Your task to perform on an android device: open sync settings in chrome Image 0: 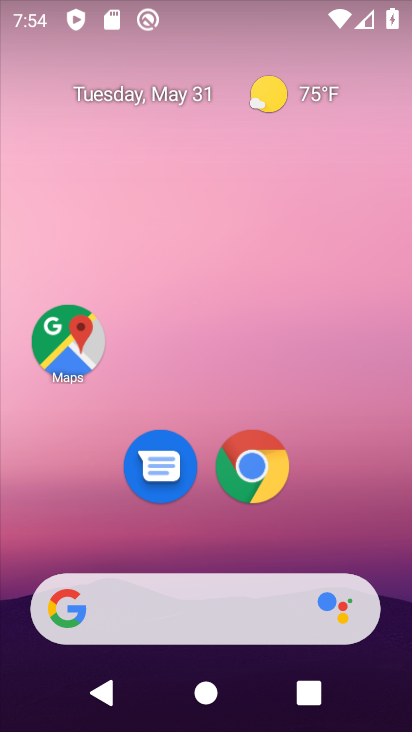
Step 0: drag from (193, 538) to (255, 173)
Your task to perform on an android device: open sync settings in chrome Image 1: 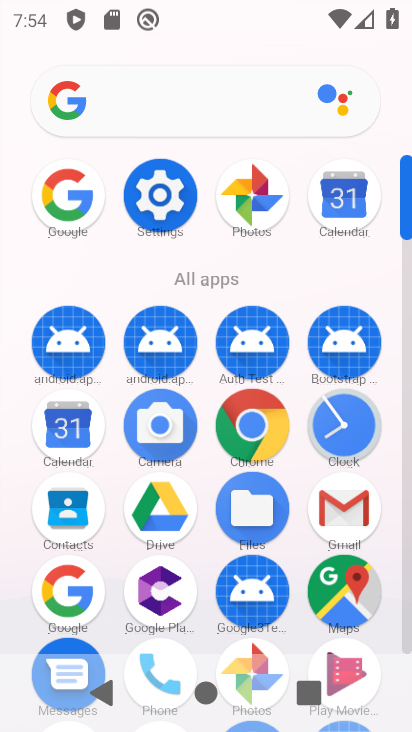
Step 1: click (252, 416)
Your task to perform on an android device: open sync settings in chrome Image 2: 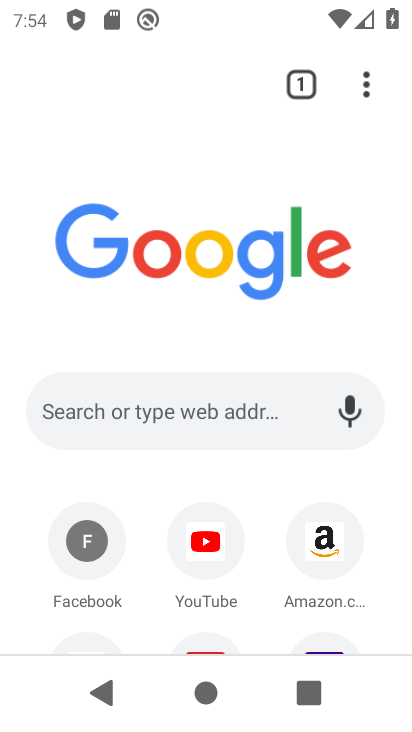
Step 2: drag from (366, 85) to (124, 526)
Your task to perform on an android device: open sync settings in chrome Image 3: 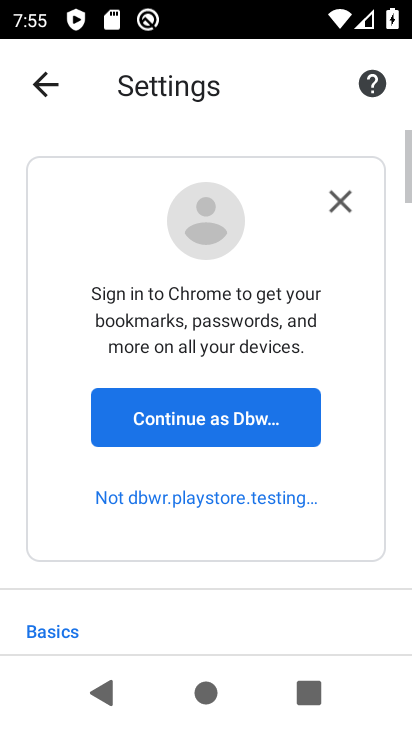
Step 3: drag from (230, 612) to (317, 137)
Your task to perform on an android device: open sync settings in chrome Image 4: 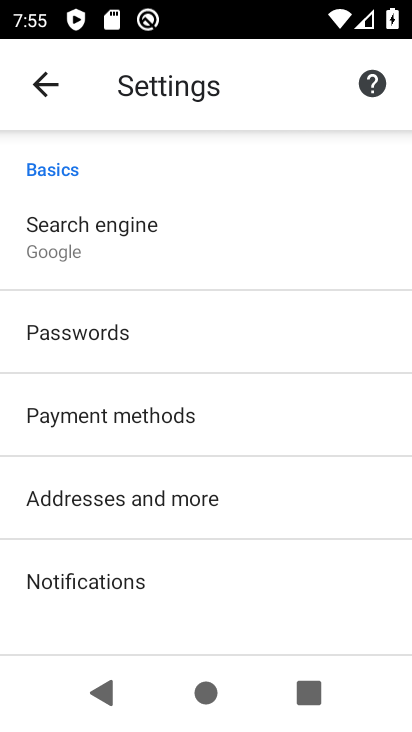
Step 4: drag from (188, 480) to (299, 111)
Your task to perform on an android device: open sync settings in chrome Image 5: 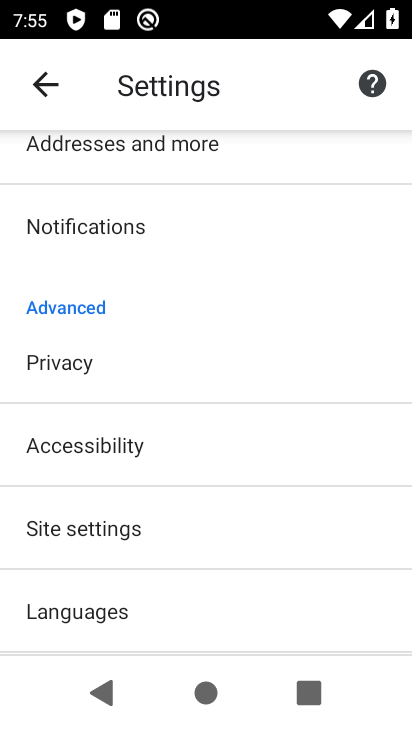
Step 5: click (188, 531)
Your task to perform on an android device: open sync settings in chrome Image 6: 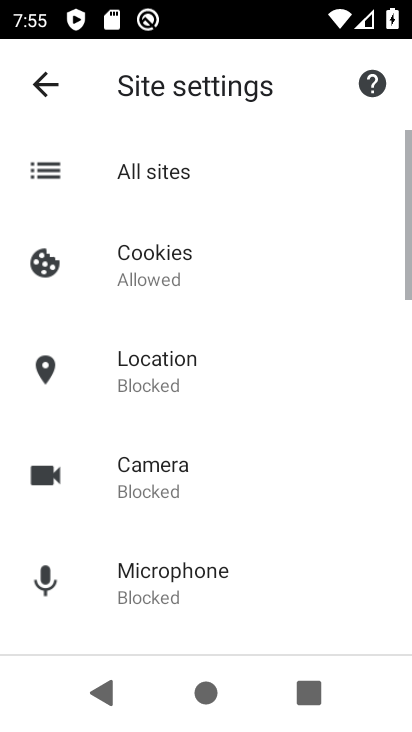
Step 6: drag from (188, 531) to (286, 9)
Your task to perform on an android device: open sync settings in chrome Image 7: 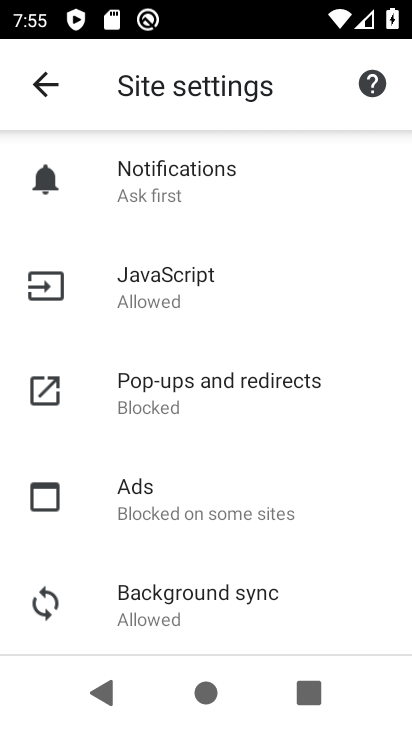
Step 7: click (221, 586)
Your task to perform on an android device: open sync settings in chrome Image 8: 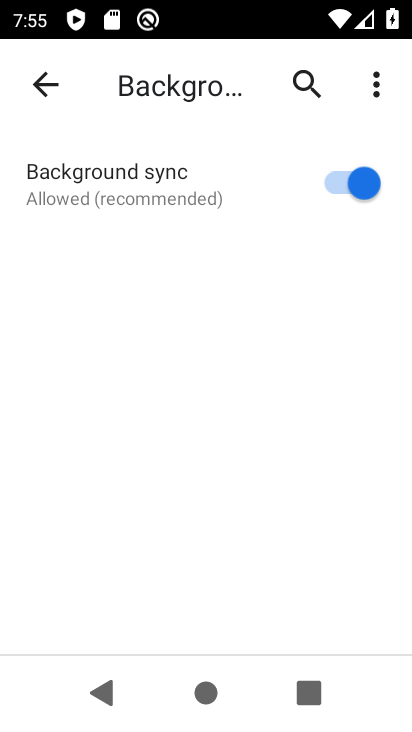
Step 8: task complete